Your task to perform on an android device: When is my next meeting? Image 0: 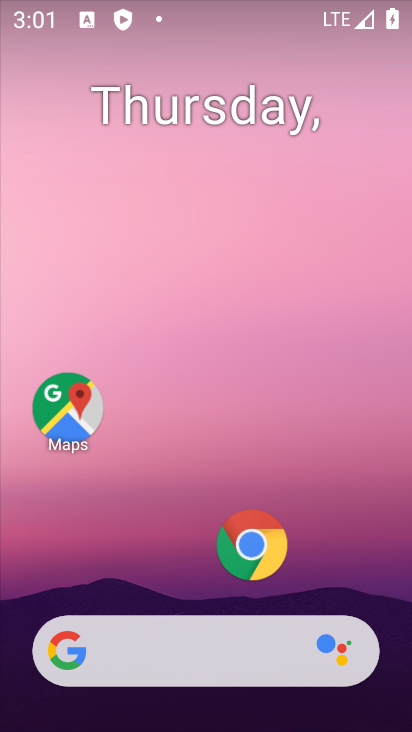
Step 0: drag from (283, 600) to (294, 3)
Your task to perform on an android device: When is my next meeting? Image 1: 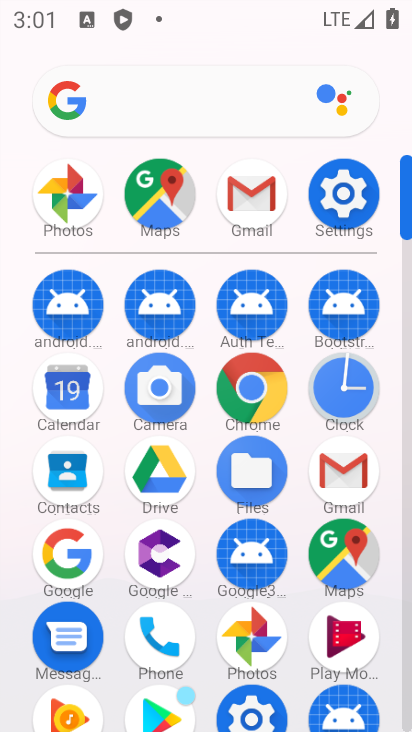
Step 1: click (49, 403)
Your task to perform on an android device: When is my next meeting? Image 2: 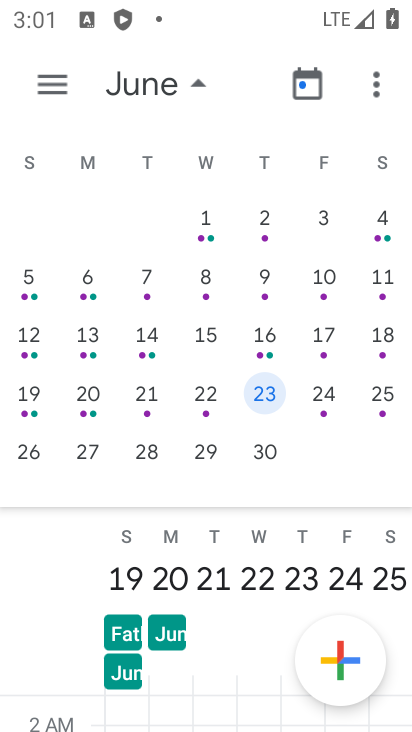
Step 2: drag from (35, 337) to (386, 354)
Your task to perform on an android device: When is my next meeting? Image 3: 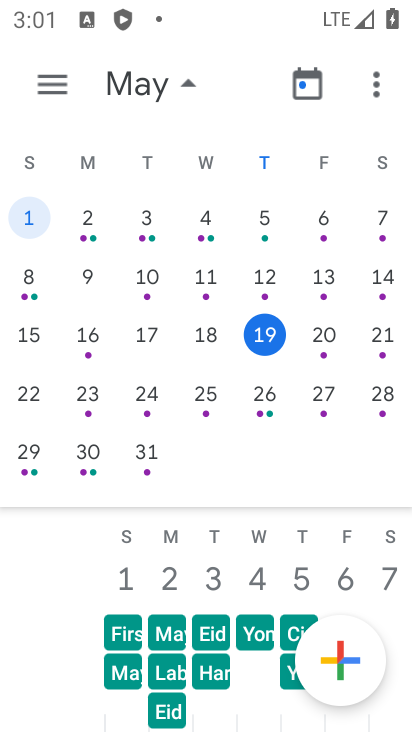
Step 3: click (270, 339)
Your task to perform on an android device: When is my next meeting? Image 4: 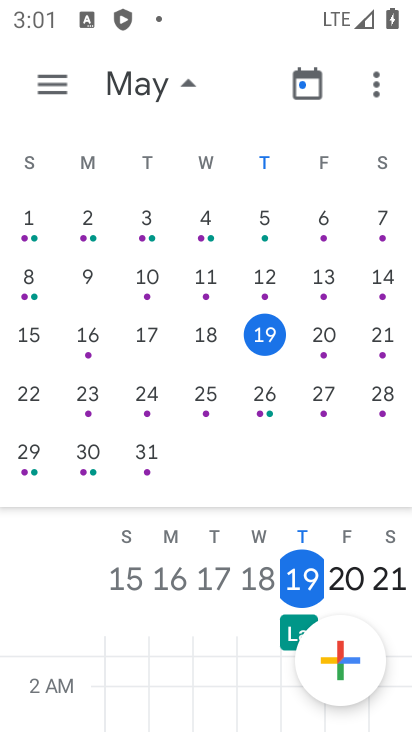
Step 4: task complete